Your task to perform on an android device: check out phone information Image 0: 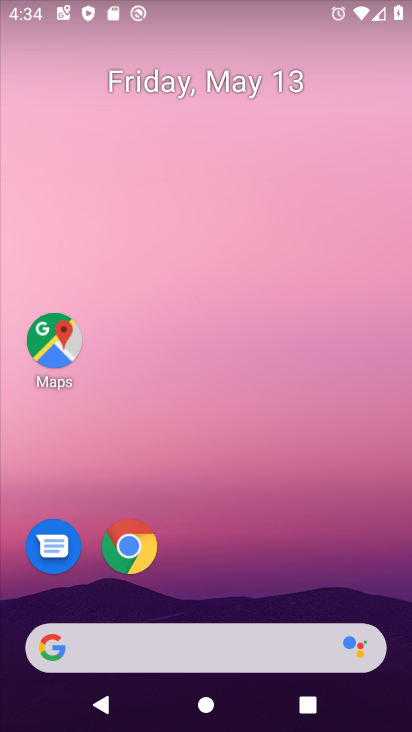
Step 0: drag from (173, 592) to (264, 60)
Your task to perform on an android device: check out phone information Image 1: 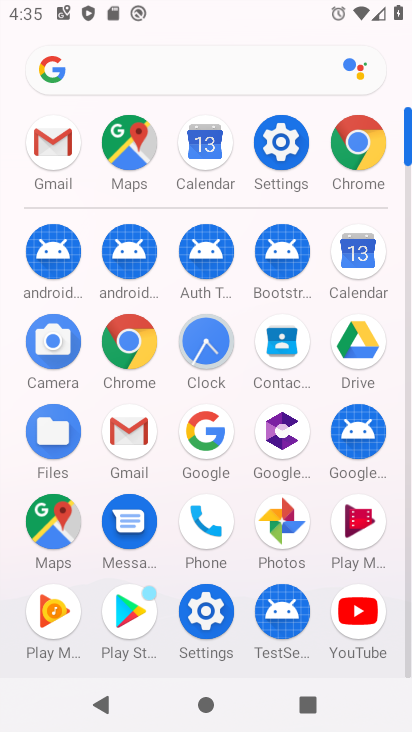
Step 1: click (201, 603)
Your task to perform on an android device: check out phone information Image 2: 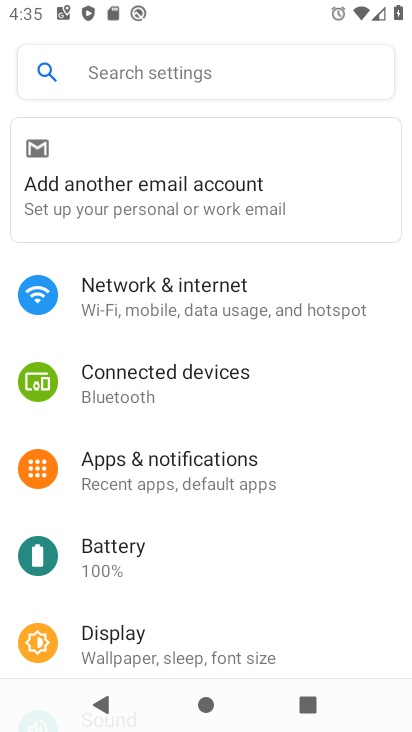
Step 2: drag from (175, 535) to (239, 206)
Your task to perform on an android device: check out phone information Image 3: 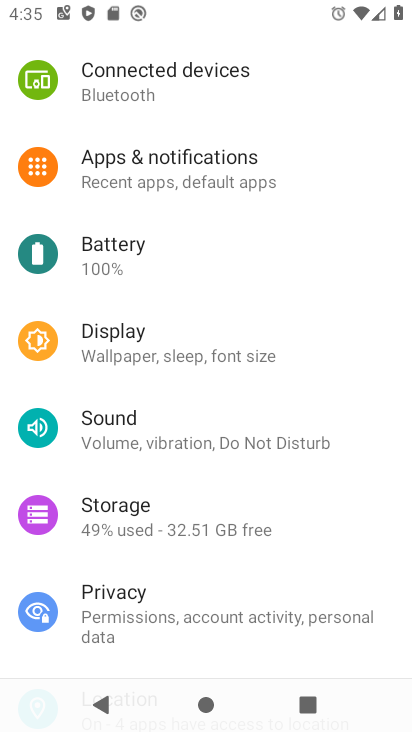
Step 3: drag from (167, 578) to (266, 80)
Your task to perform on an android device: check out phone information Image 4: 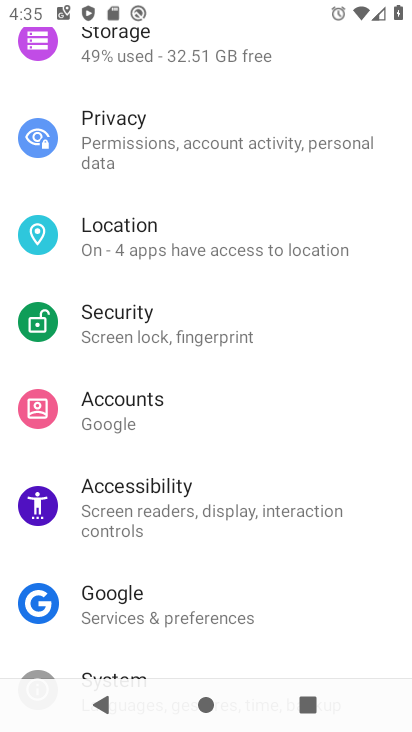
Step 4: drag from (193, 341) to (232, 66)
Your task to perform on an android device: check out phone information Image 5: 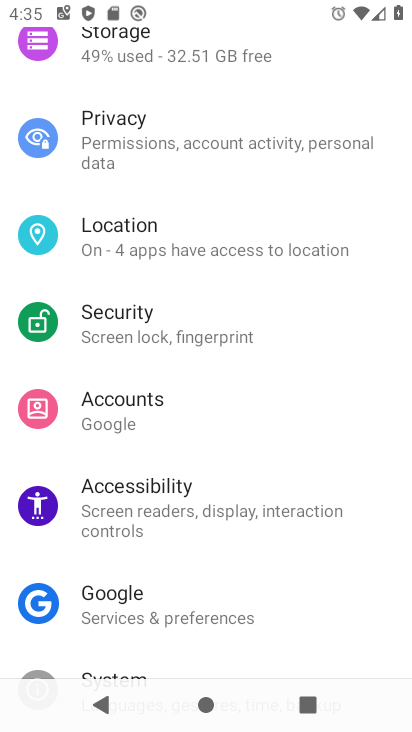
Step 5: drag from (144, 558) to (184, 226)
Your task to perform on an android device: check out phone information Image 6: 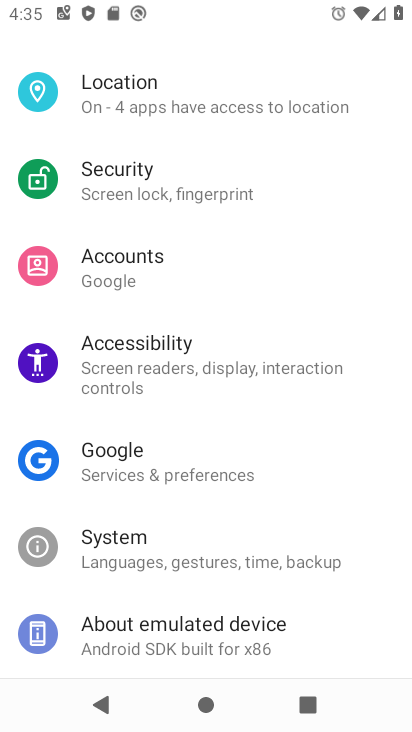
Step 6: click (154, 639)
Your task to perform on an android device: check out phone information Image 7: 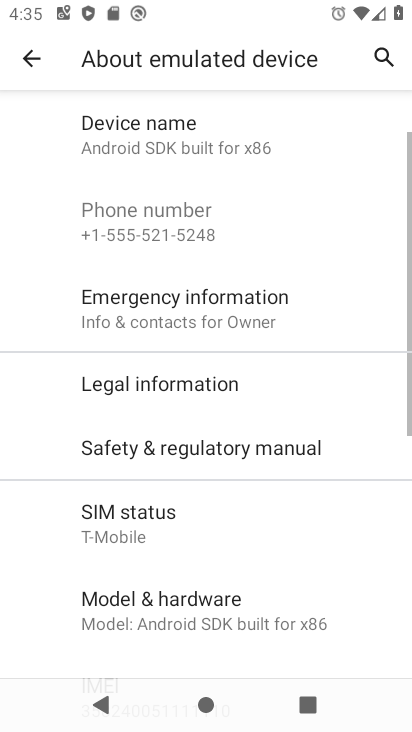
Step 7: task complete